Your task to perform on an android device: Check the weather Image 0: 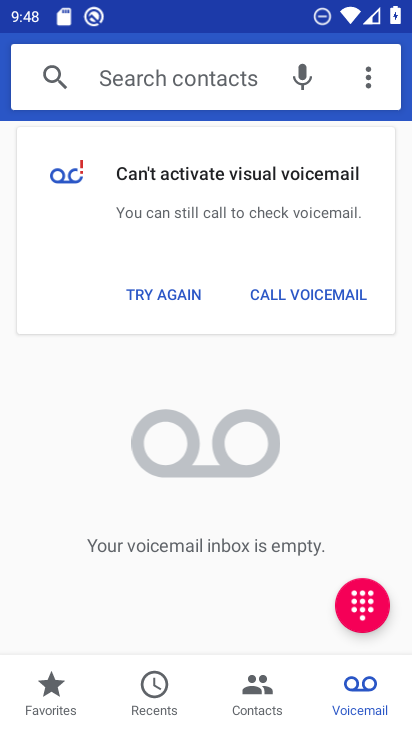
Step 0: press home button
Your task to perform on an android device: Check the weather Image 1: 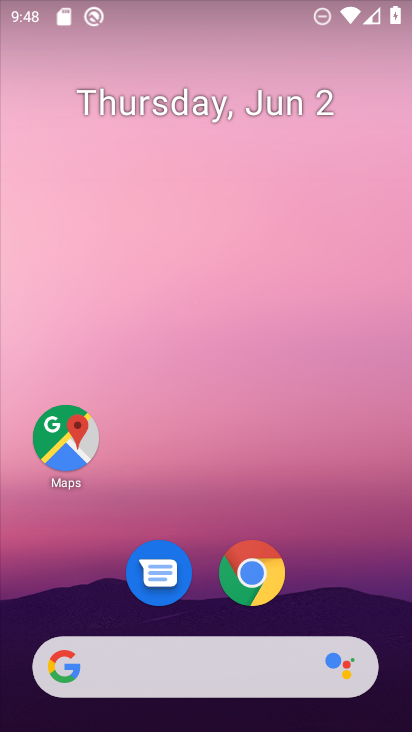
Step 1: click (250, 577)
Your task to perform on an android device: Check the weather Image 2: 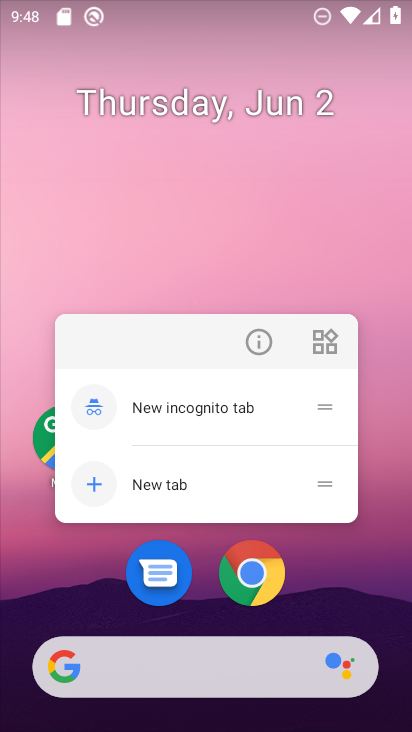
Step 2: click (256, 575)
Your task to perform on an android device: Check the weather Image 3: 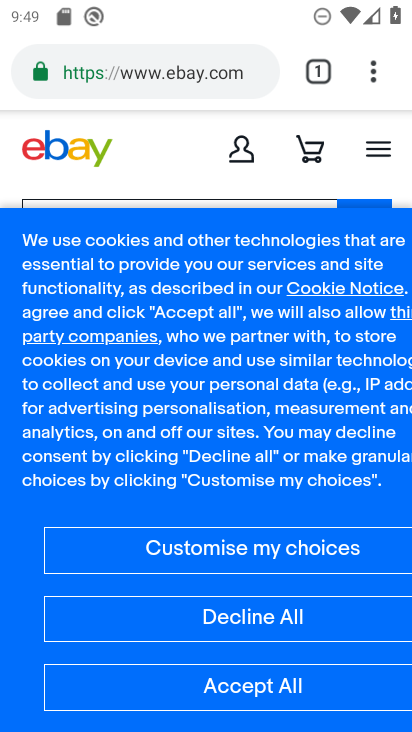
Step 3: click (198, 67)
Your task to perform on an android device: Check the weather Image 4: 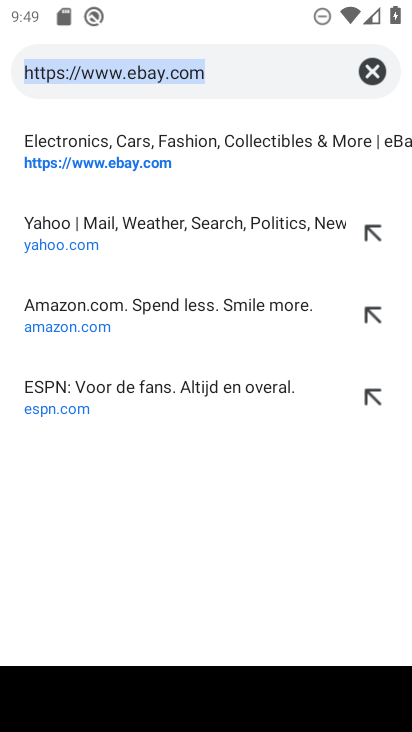
Step 4: type "weather"
Your task to perform on an android device: Check the weather Image 5: 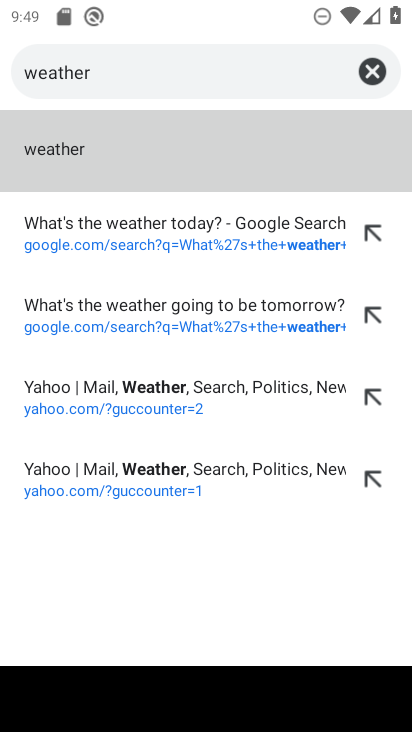
Step 5: click (49, 146)
Your task to perform on an android device: Check the weather Image 6: 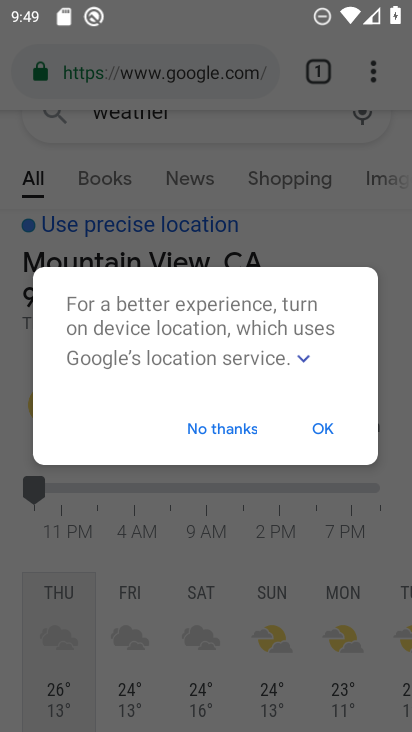
Step 6: click (328, 427)
Your task to perform on an android device: Check the weather Image 7: 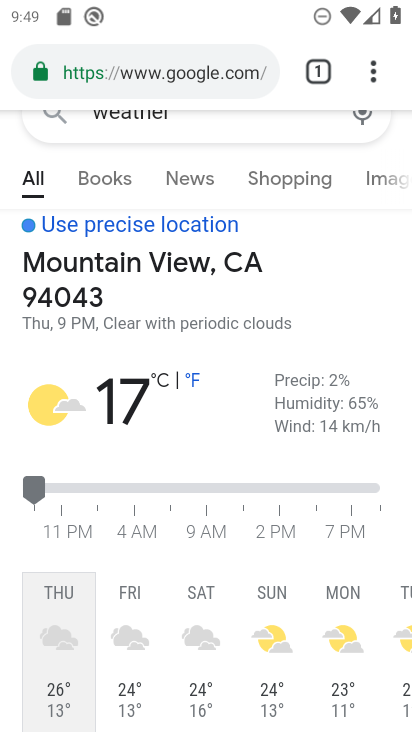
Step 7: task complete